Your task to perform on an android device: Go to settings Image 0: 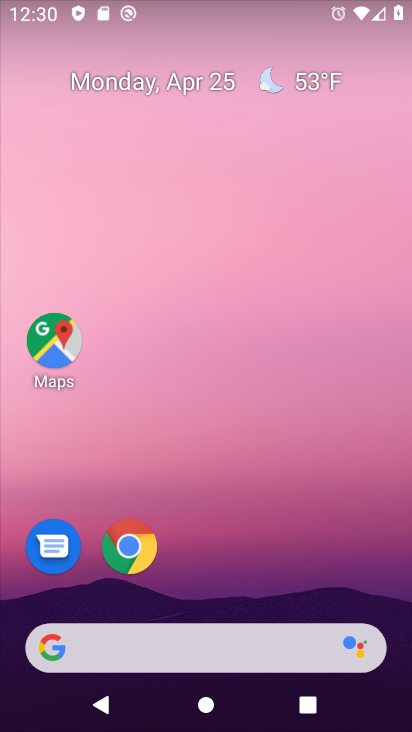
Step 0: drag from (222, 555) to (232, 182)
Your task to perform on an android device: Go to settings Image 1: 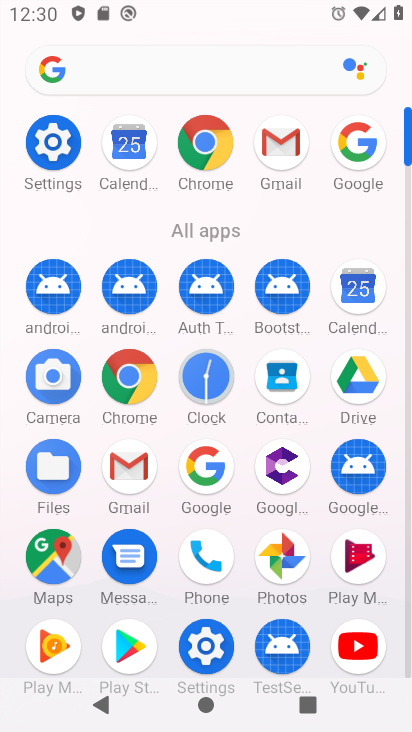
Step 1: click (55, 126)
Your task to perform on an android device: Go to settings Image 2: 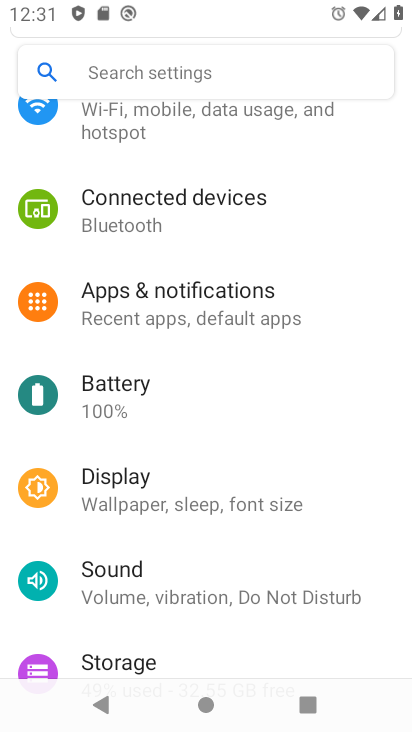
Step 2: task complete